Your task to perform on an android device: toggle data saver in the chrome app Image 0: 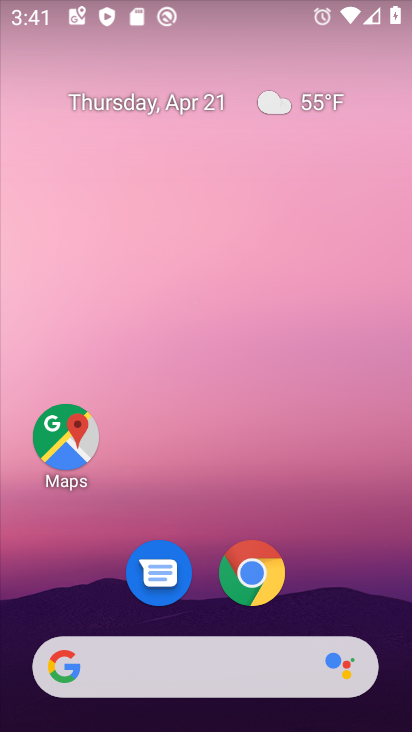
Step 0: click (250, 576)
Your task to perform on an android device: toggle data saver in the chrome app Image 1: 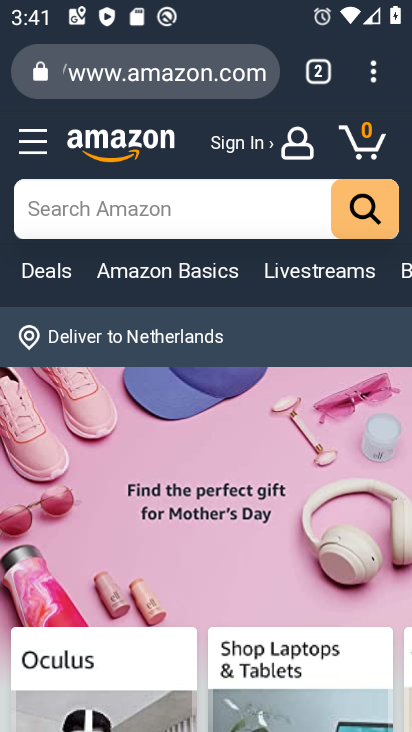
Step 1: click (373, 77)
Your task to perform on an android device: toggle data saver in the chrome app Image 2: 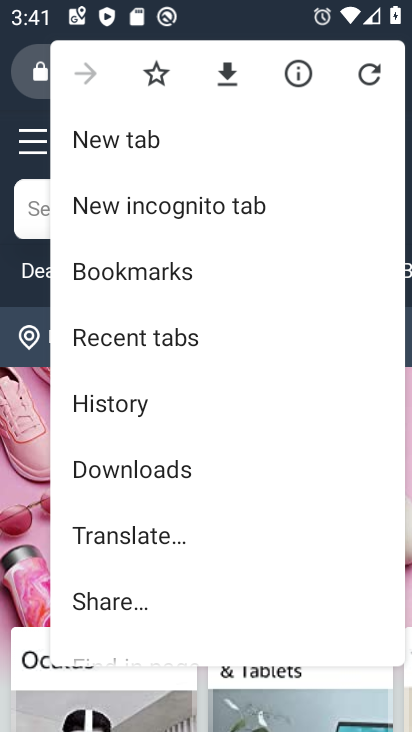
Step 2: drag from (257, 505) to (285, 265)
Your task to perform on an android device: toggle data saver in the chrome app Image 3: 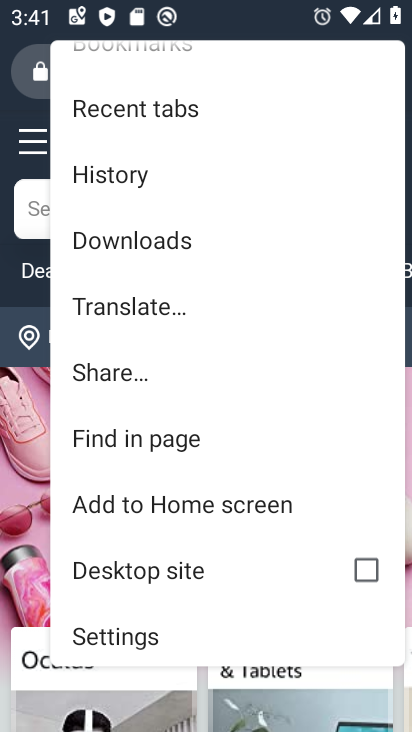
Step 3: drag from (289, 562) to (289, 271)
Your task to perform on an android device: toggle data saver in the chrome app Image 4: 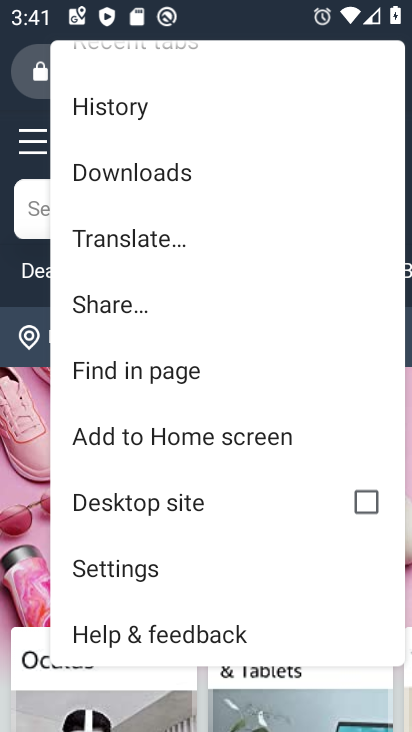
Step 4: click (109, 568)
Your task to perform on an android device: toggle data saver in the chrome app Image 5: 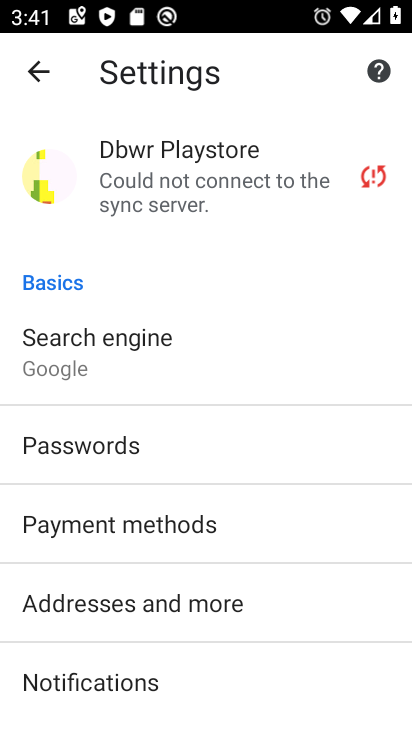
Step 5: drag from (273, 621) to (245, 360)
Your task to perform on an android device: toggle data saver in the chrome app Image 6: 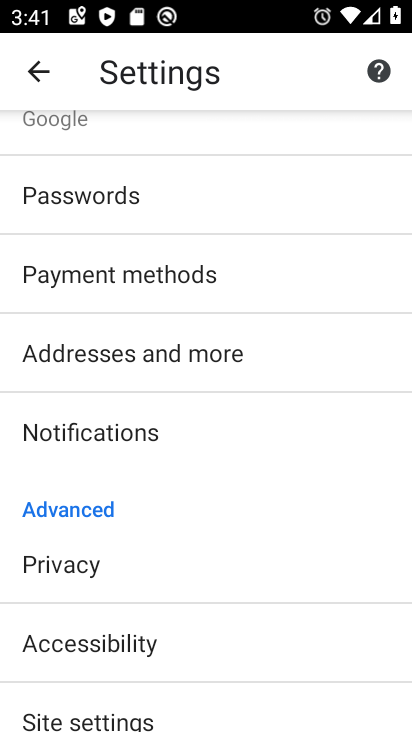
Step 6: drag from (205, 635) to (217, 453)
Your task to perform on an android device: toggle data saver in the chrome app Image 7: 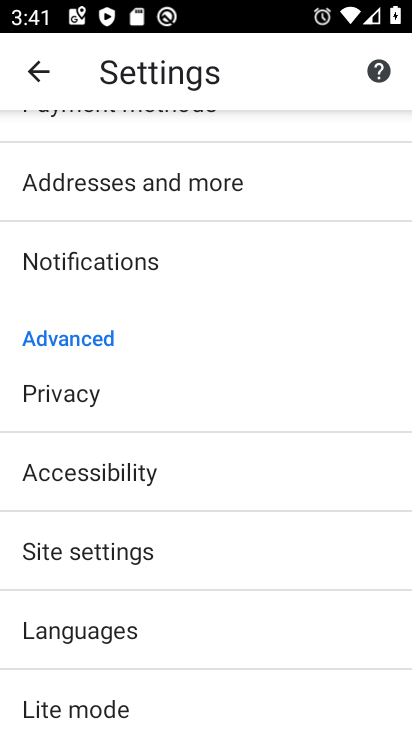
Step 7: drag from (157, 596) to (178, 395)
Your task to perform on an android device: toggle data saver in the chrome app Image 8: 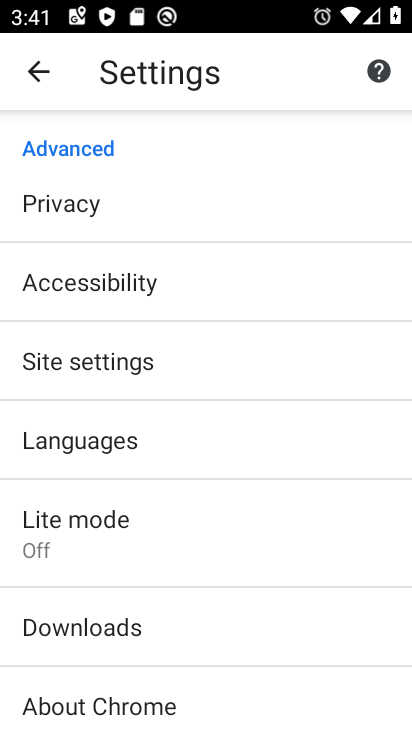
Step 8: click (72, 530)
Your task to perform on an android device: toggle data saver in the chrome app Image 9: 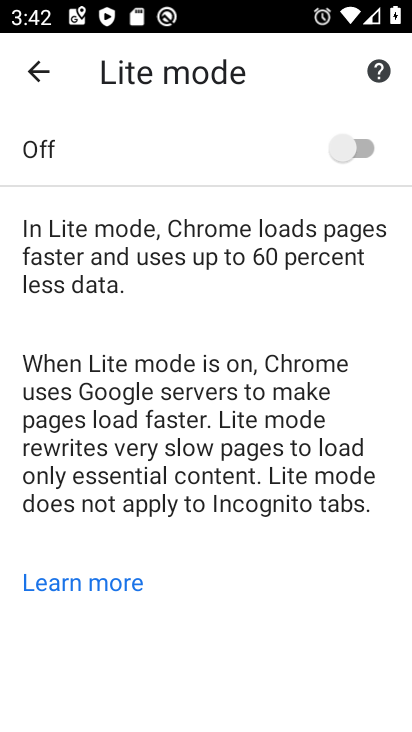
Step 9: click (370, 142)
Your task to perform on an android device: toggle data saver in the chrome app Image 10: 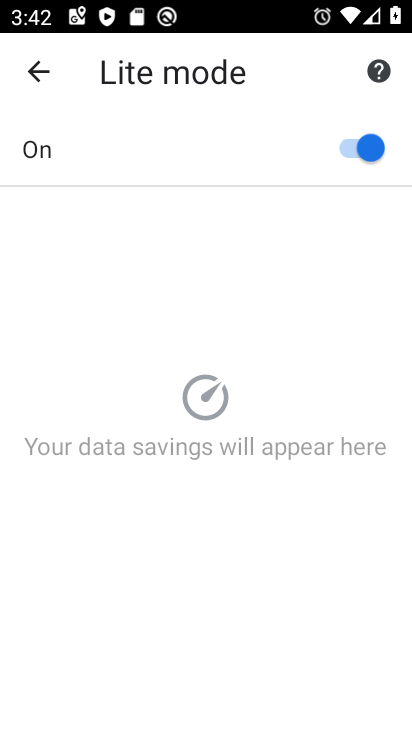
Step 10: task complete